Your task to perform on an android device: star an email in the gmail app Image 0: 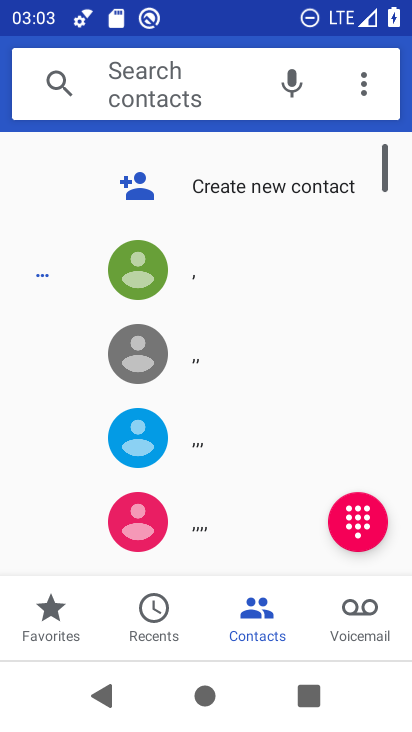
Step 0: press home button
Your task to perform on an android device: star an email in the gmail app Image 1: 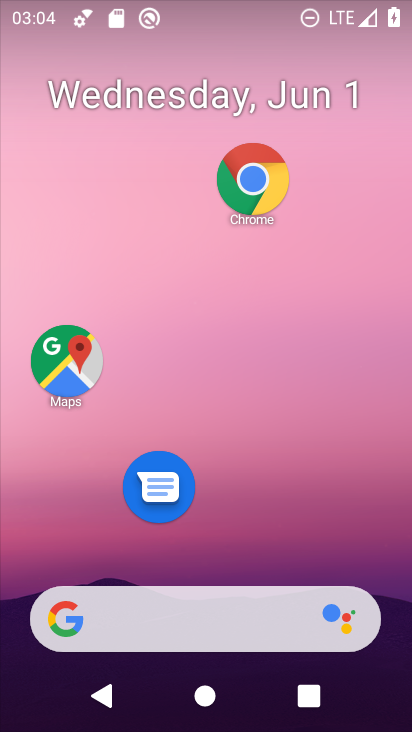
Step 1: drag from (300, 514) to (293, 193)
Your task to perform on an android device: star an email in the gmail app Image 2: 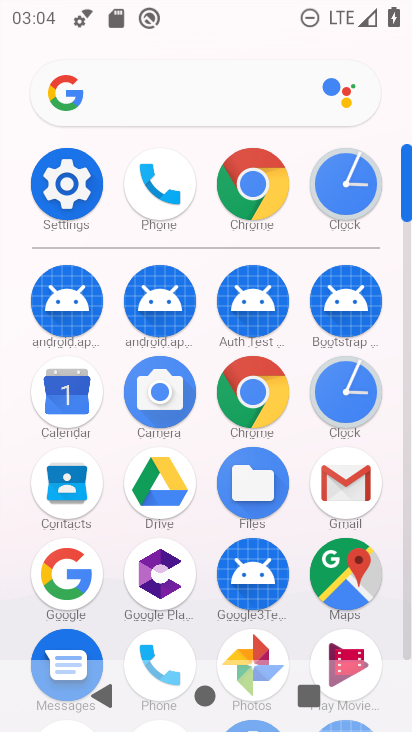
Step 2: click (337, 483)
Your task to perform on an android device: star an email in the gmail app Image 3: 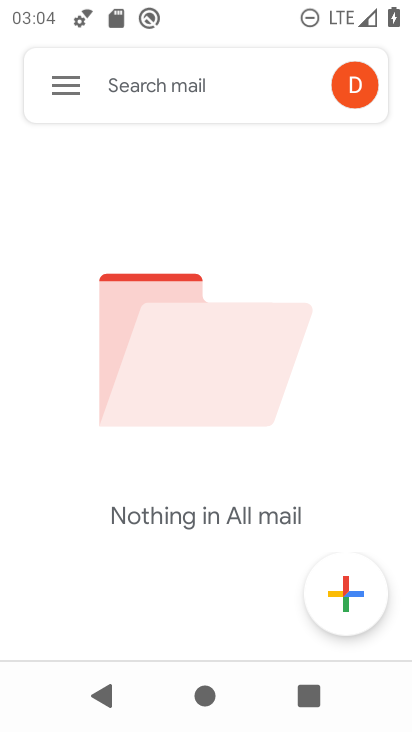
Step 3: click (53, 80)
Your task to perform on an android device: star an email in the gmail app Image 4: 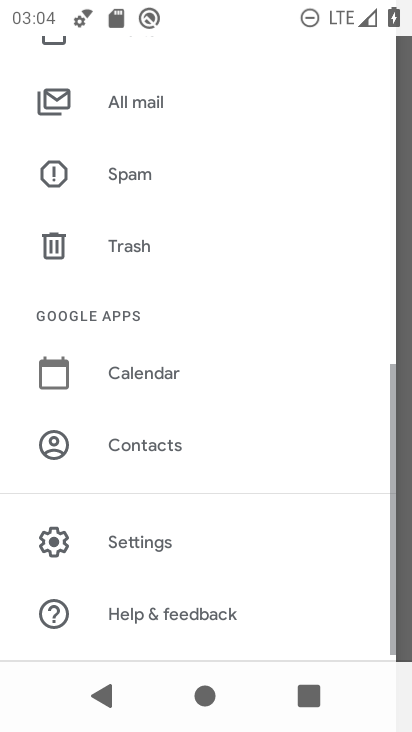
Step 4: drag from (124, 151) to (123, 618)
Your task to perform on an android device: star an email in the gmail app Image 5: 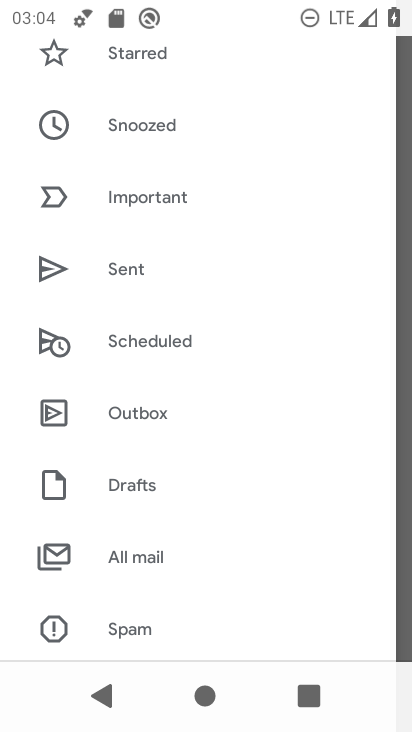
Step 5: drag from (125, 141) to (138, 554)
Your task to perform on an android device: star an email in the gmail app Image 6: 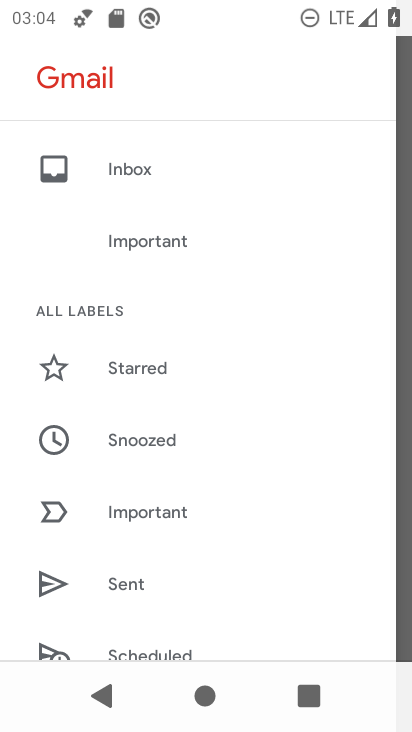
Step 6: click (123, 363)
Your task to perform on an android device: star an email in the gmail app Image 7: 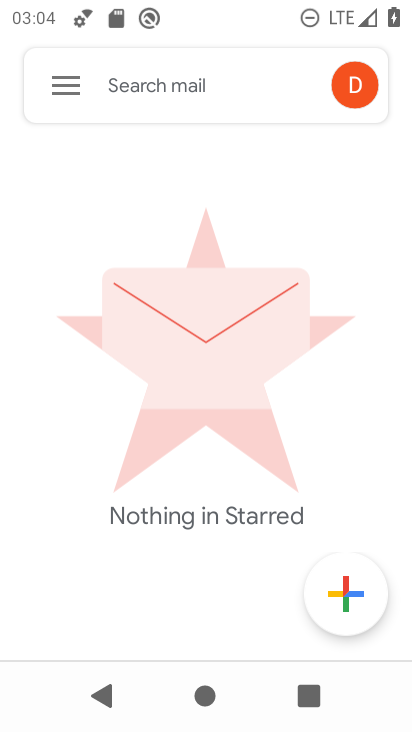
Step 7: task complete